Your task to perform on an android device: Open accessibility settings Image 0: 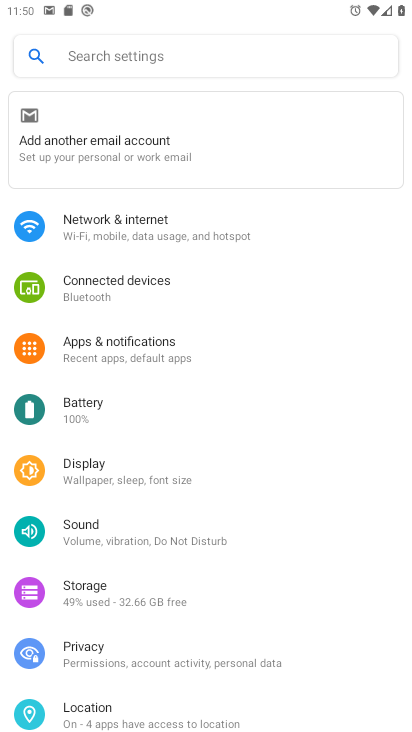
Step 0: drag from (162, 676) to (192, 18)
Your task to perform on an android device: Open accessibility settings Image 1: 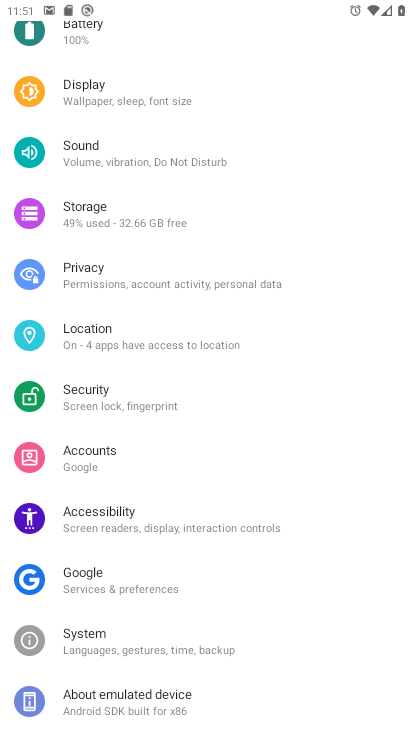
Step 1: click (155, 506)
Your task to perform on an android device: Open accessibility settings Image 2: 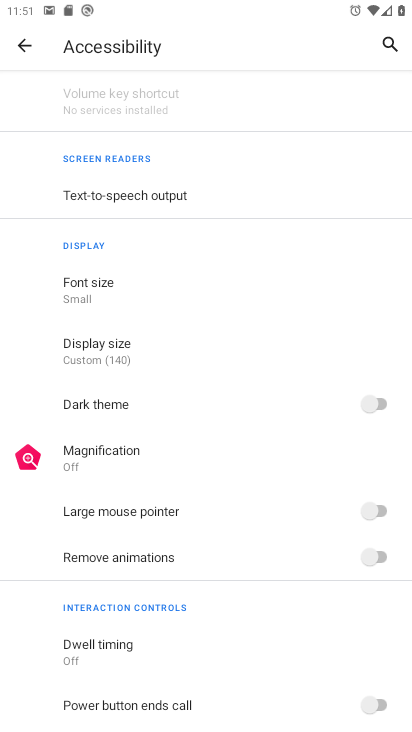
Step 2: task complete